Your task to perform on an android device: Open Google Chrome Image 0: 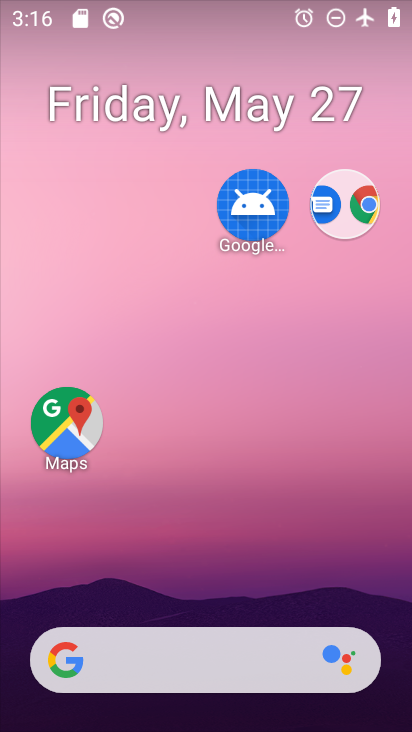
Step 0: drag from (230, 686) to (279, 295)
Your task to perform on an android device: Open Google Chrome Image 1: 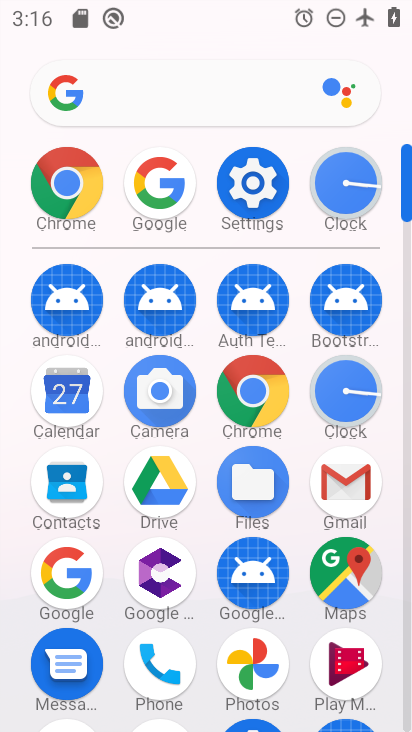
Step 1: drag from (262, 560) to (312, 281)
Your task to perform on an android device: Open Google Chrome Image 2: 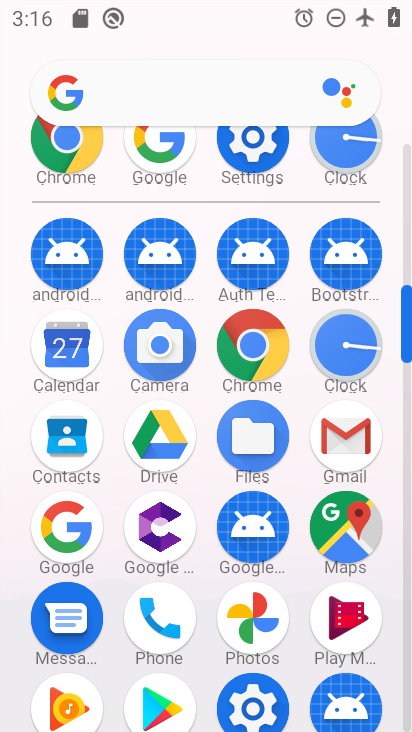
Step 2: click (251, 366)
Your task to perform on an android device: Open Google Chrome Image 3: 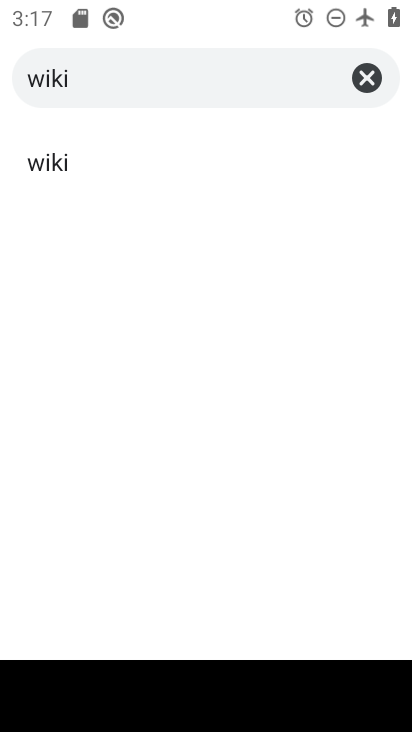
Step 3: click (365, 79)
Your task to perform on an android device: Open Google Chrome Image 4: 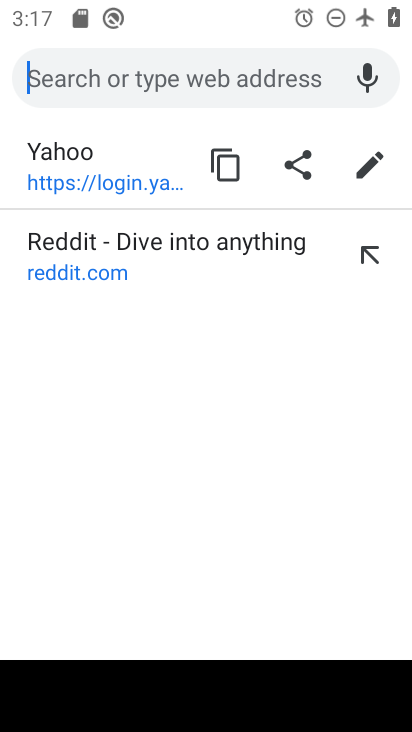
Step 4: task complete